Your task to perform on an android device: toggle airplane mode Image 0: 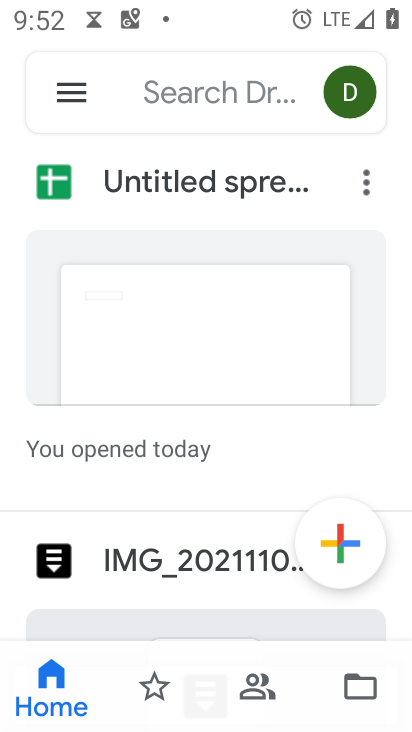
Step 0: press home button
Your task to perform on an android device: toggle airplane mode Image 1: 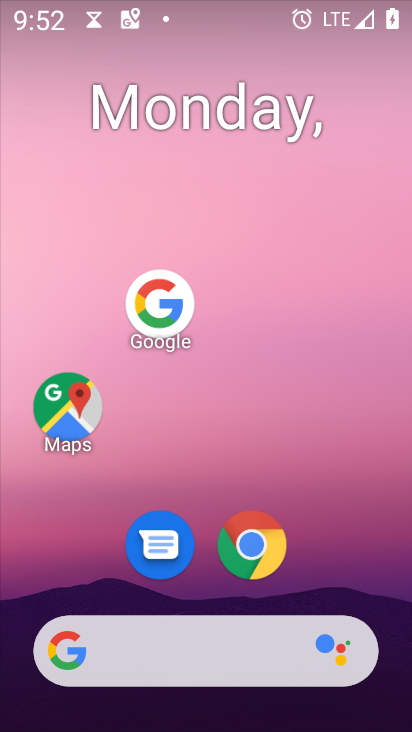
Step 1: drag from (183, 662) to (328, 130)
Your task to perform on an android device: toggle airplane mode Image 2: 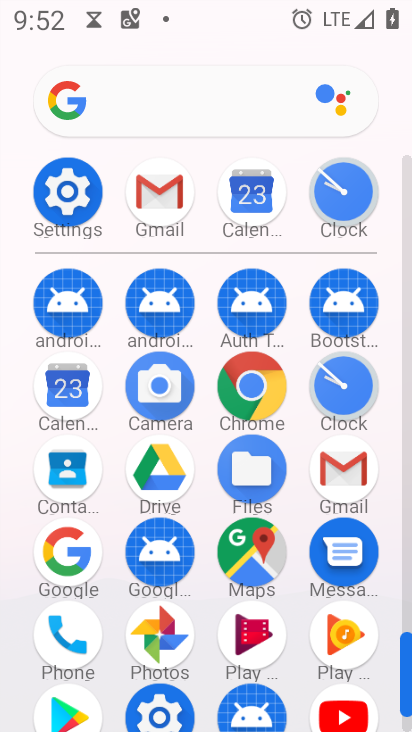
Step 2: click (71, 197)
Your task to perform on an android device: toggle airplane mode Image 3: 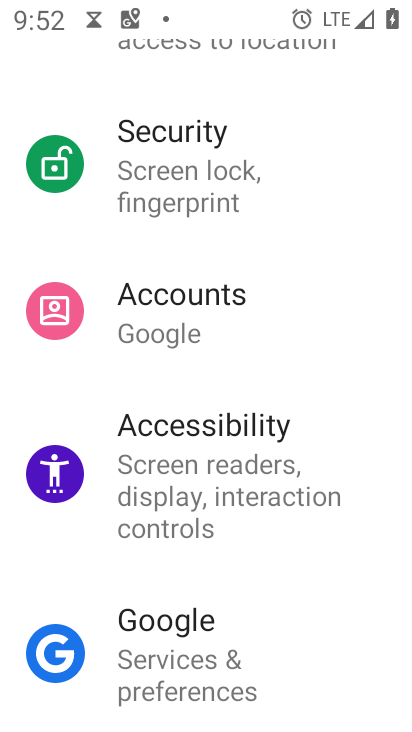
Step 3: drag from (357, 113) to (240, 598)
Your task to perform on an android device: toggle airplane mode Image 4: 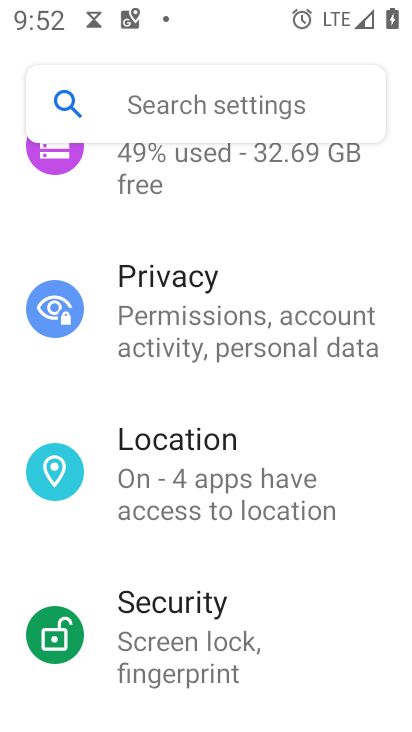
Step 4: drag from (300, 227) to (260, 661)
Your task to perform on an android device: toggle airplane mode Image 5: 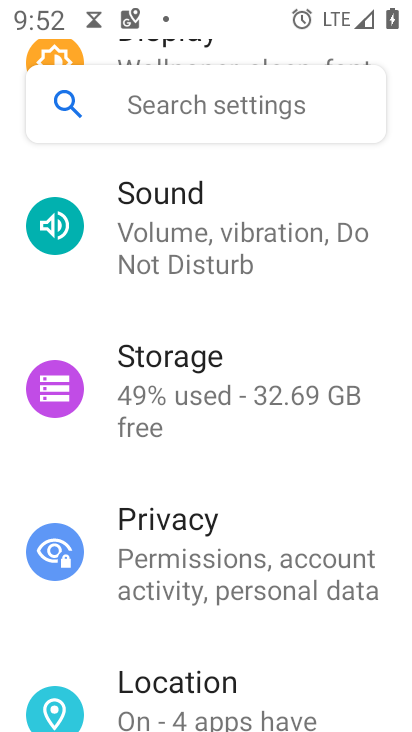
Step 5: drag from (318, 187) to (258, 664)
Your task to perform on an android device: toggle airplane mode Image 6: 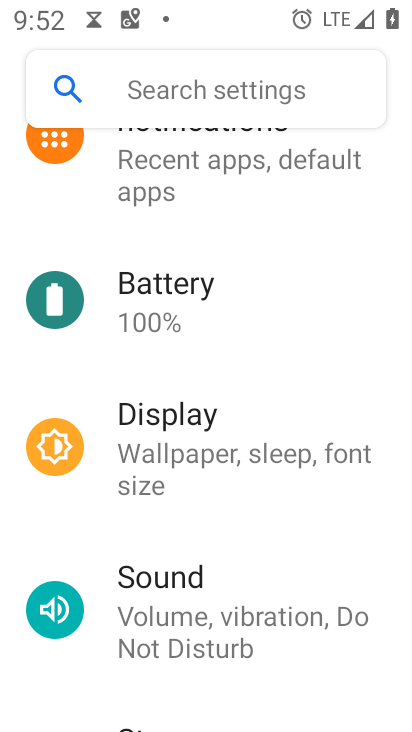
Step 6: drag from (307, 227) to (237, 648)
Your task to perform on an android device: toggle airplane mode Image 7: 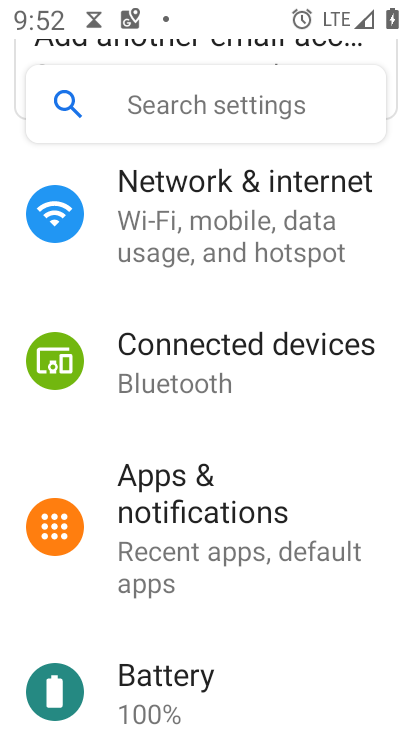
Step 7: click (236, 228)
Your task to perform on an android device: toggle airplane mode Image 8: 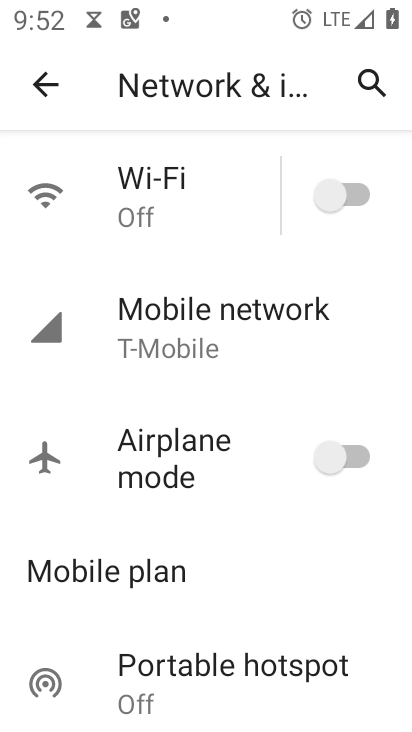
Step 8: click (356, 451)
Your task to perform on an android device: toggle airplane mode Image 9: 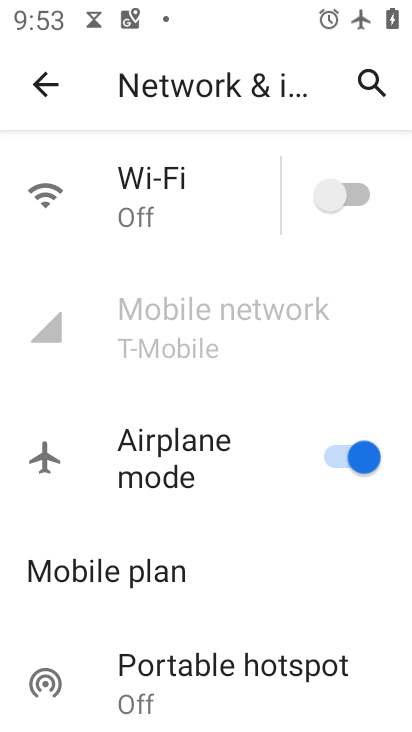
Step 9: task complete